Your task to perform on an android device: open chrome and create a bookmark for the current page Image 0: 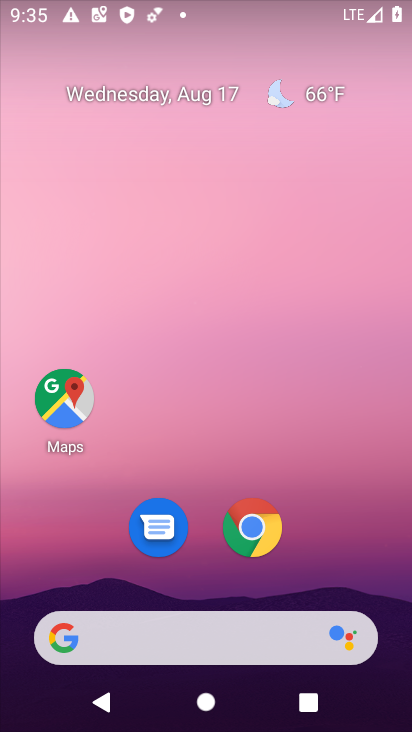
Step 0: click (257, 531)
Your task to perform on an android device: open chrome and create a bookmark for the current page Image 1: 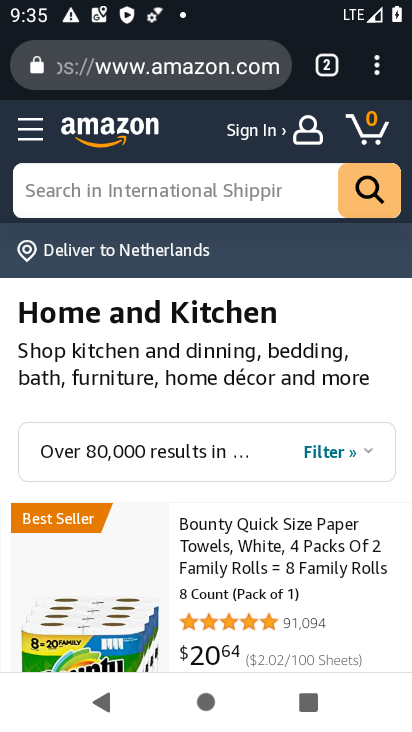
Step 1: click (387, 72)
Your task to perform on an android device: open chrome and create a bookmark for the current page Image 2: 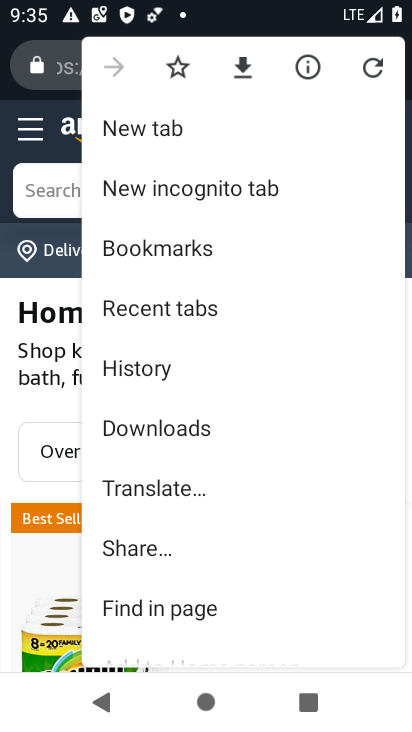
Step 2: click (177, 66)
Your task to perform on an android device: open chrome and create a bookmark for the current page Image 3: 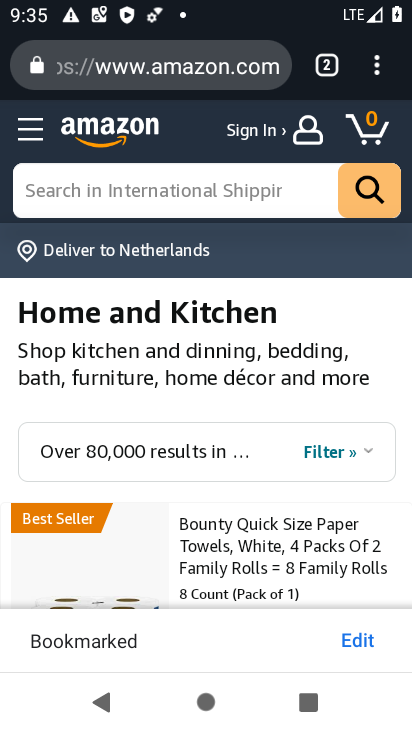
Step 3: task complete